Your task to perform on an android device: install app "Gmail" Image 0: 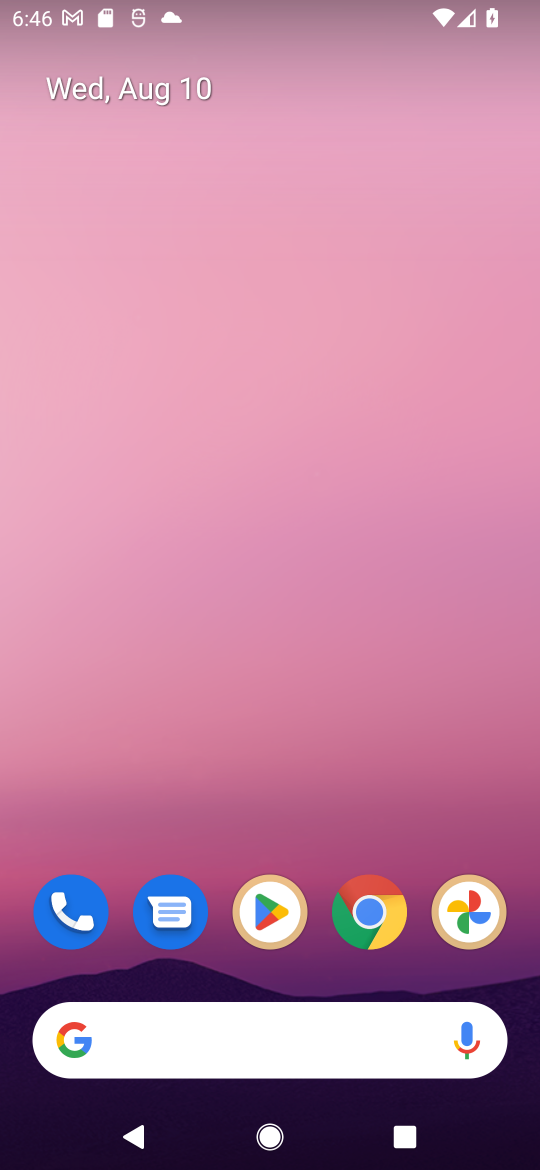
Step 0: drag from (408, 964) to (384, 123)
Your task to perform on an android device: install app "Gmail" Image 1: 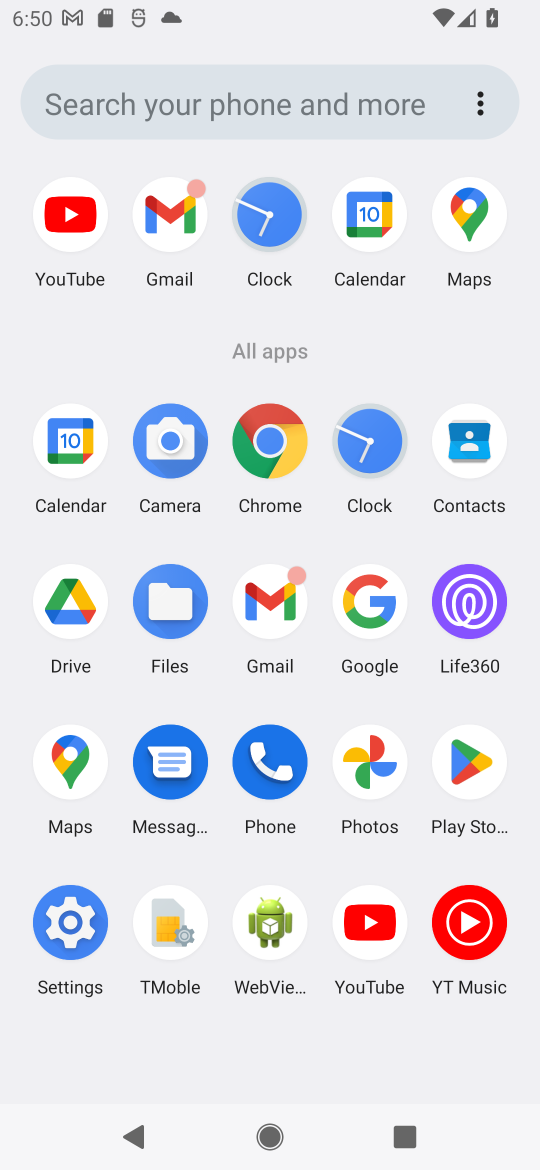
Step 1: click (471, 779)
Your task to perform on an android device: install app "Gmail" Image 2: 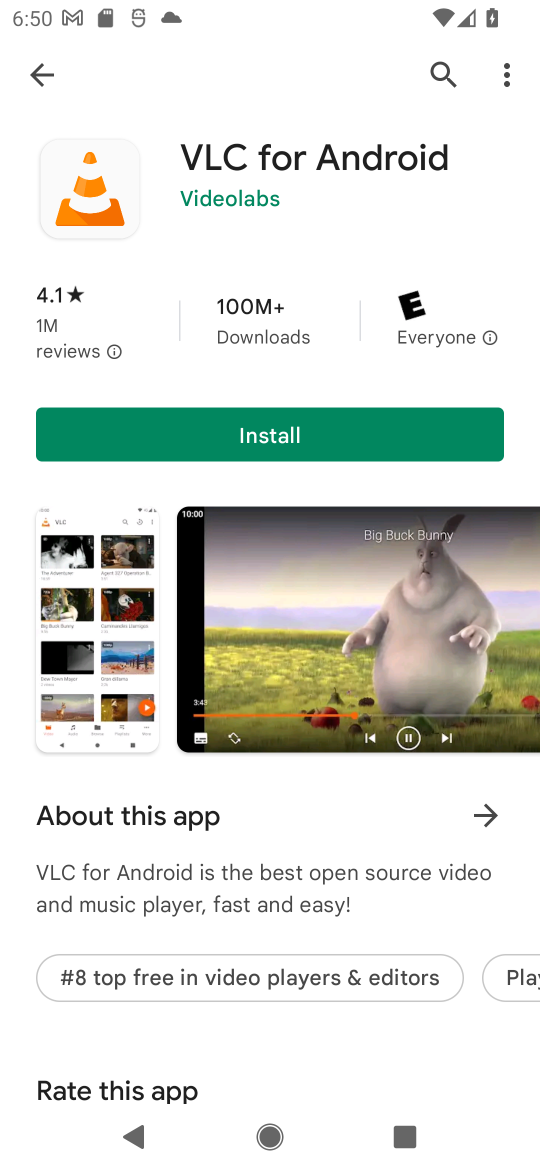
Step 2: press back button
Your task to perform on an android device: install app "Gmail" Image 3: 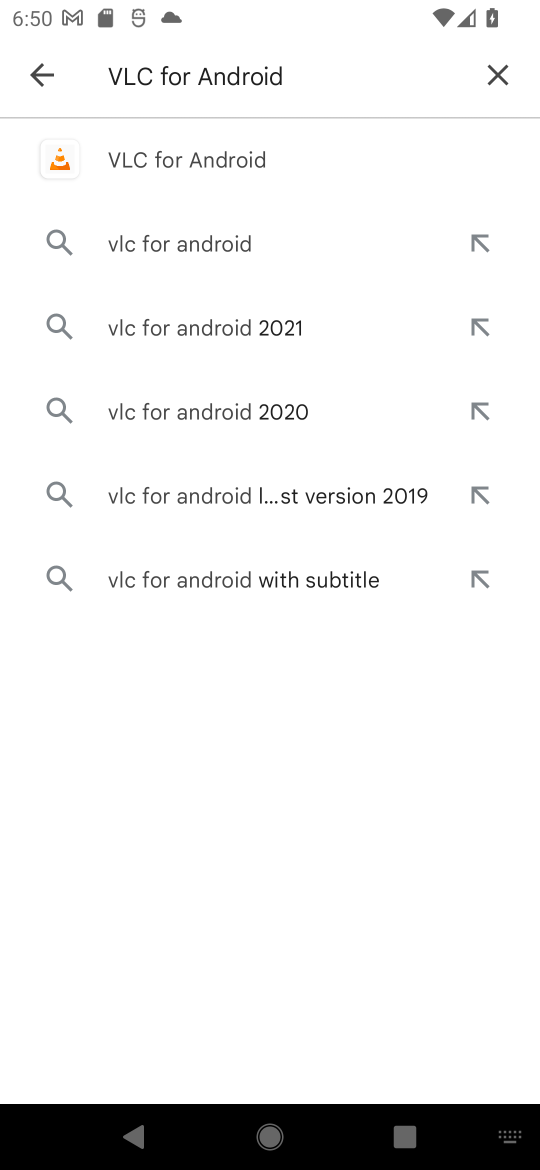
Step 3: click (504, 75)
Your task to perform on an android device: install app "Gmail" Image 4: 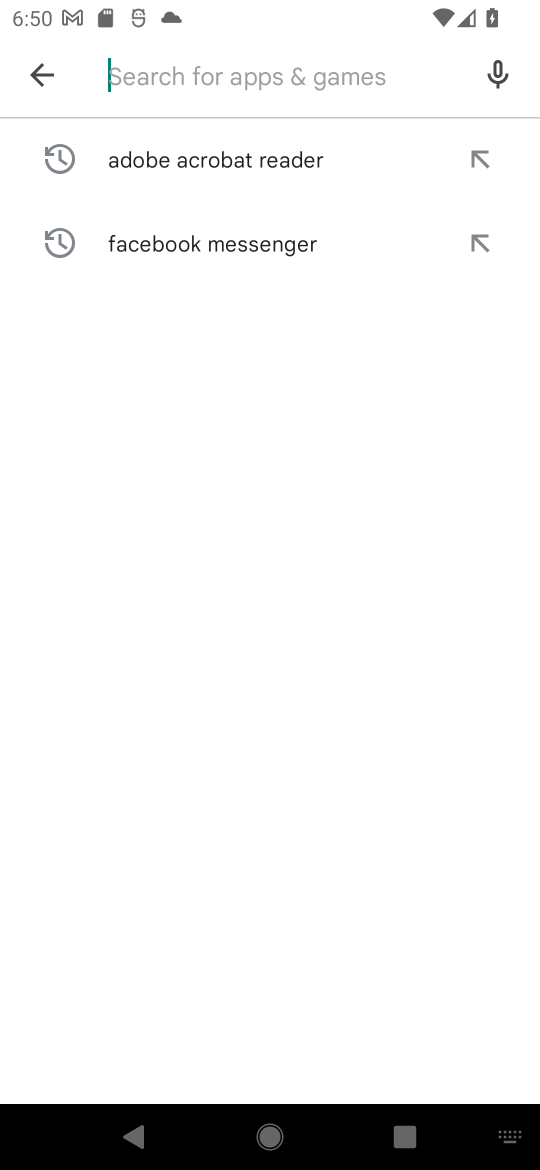
Step 4: type "Gmail"
Your task to perform on an android device: install app "Gmail" Image 5: 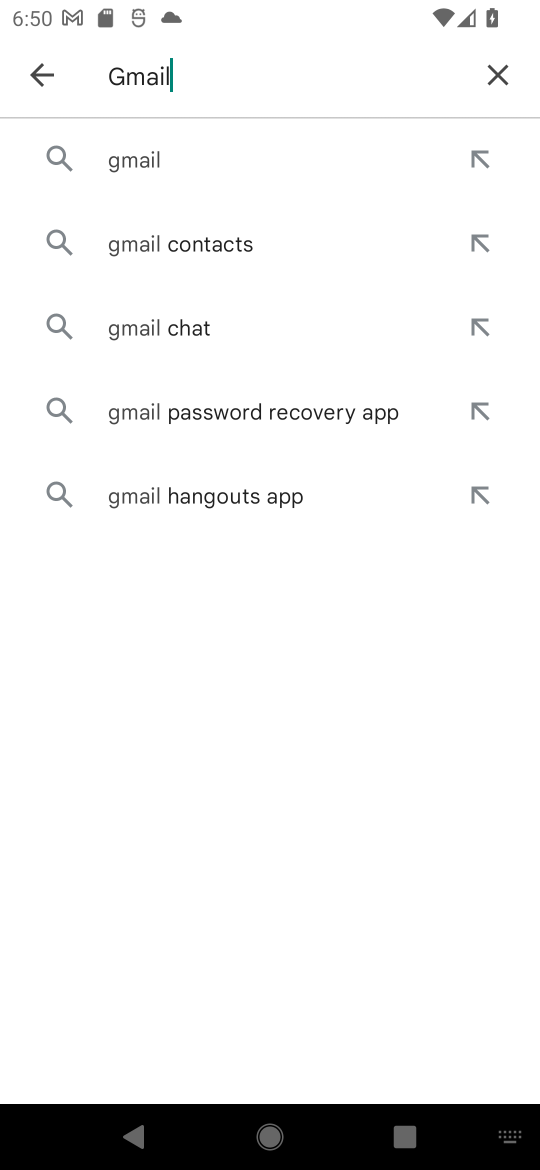
Step 5: click (179, 163)
Your task to perform on an android device: install app "Gmail" Image 6: 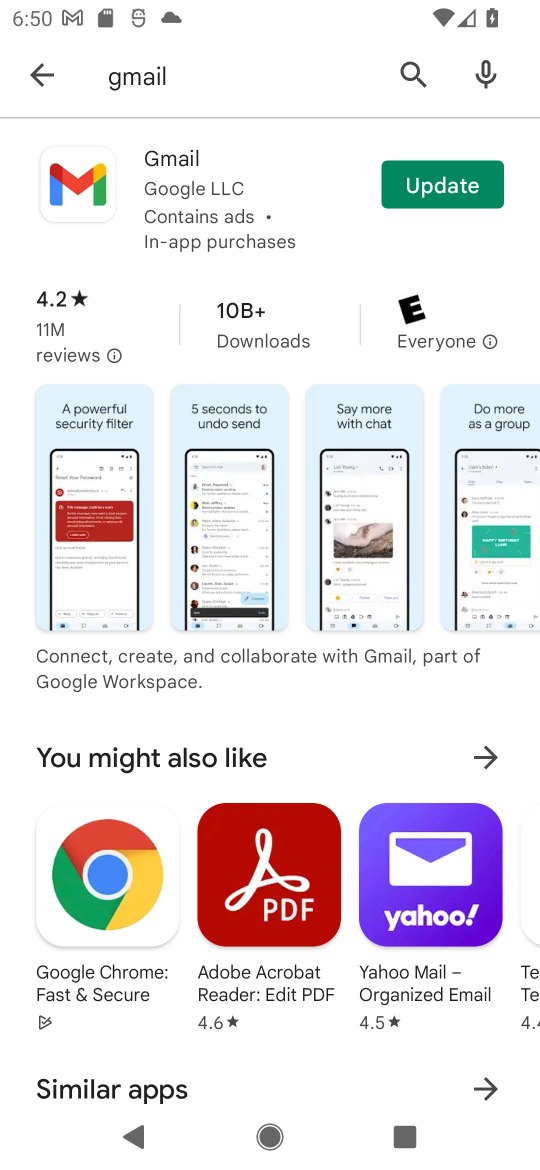
Step 6: click (423, 194)
Your task to perform on an android device: install app "Gmail" Image 7: 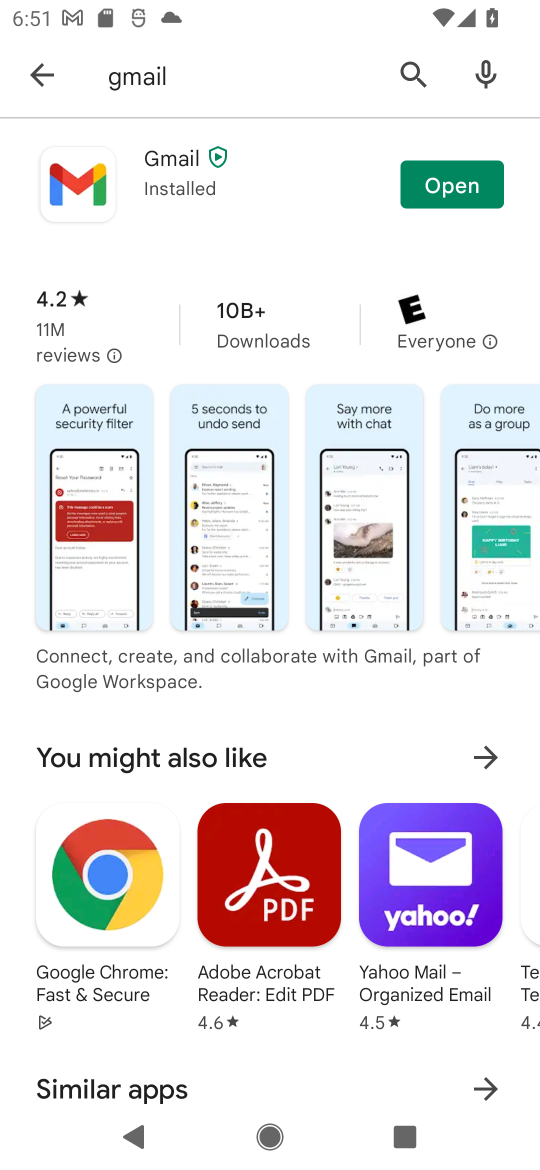
Step 7: task complete